Your task to perform on an android device: uninstall "Google Play Music" Image 0: 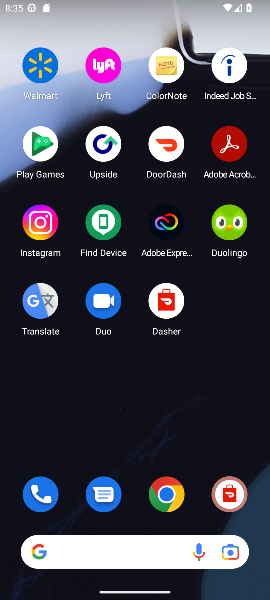
Step 0: drag from (195, 507) to (204, 69)
Your task to perform on an android device: uninstall "Google Play Music" Image 1: 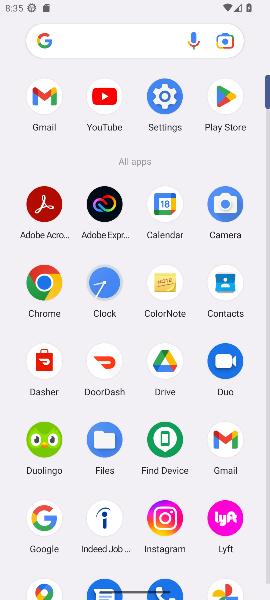
Step 1: click (226, 98)
Your task to perform on an android device: uninstall "Google Play Music" Image 2: 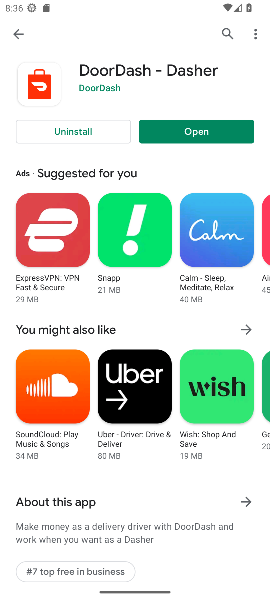
Step 2: click (223, 29)
Your task to perform on an android device: uninstall "Google Play Music" Image 3: 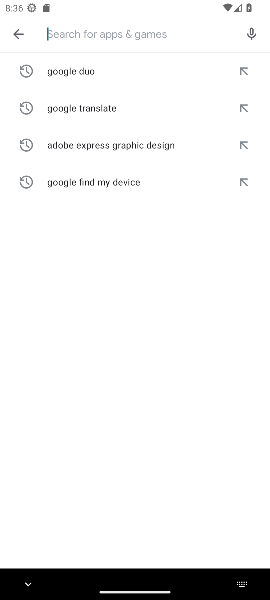
Step 3: type "Google Play Music"
Your task to perform on an android device: uninstall "Google Play Music" Image 4: 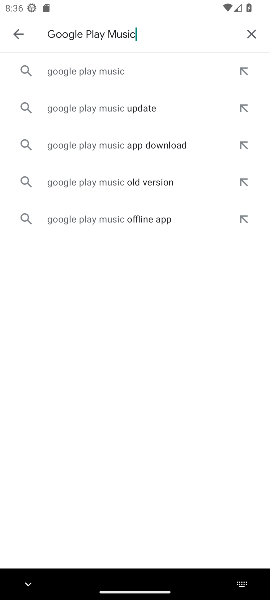
Step 4: click (84, 71)
Your task to perform on an android device: uninstall "Google Play Music" Image 5: 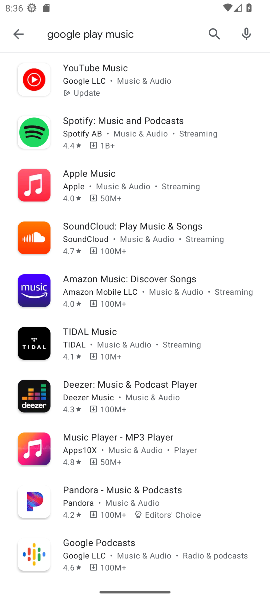
Step 5: task complete